Your task to perform on an android device: delete the emails in spam in the gmail app Image 0: 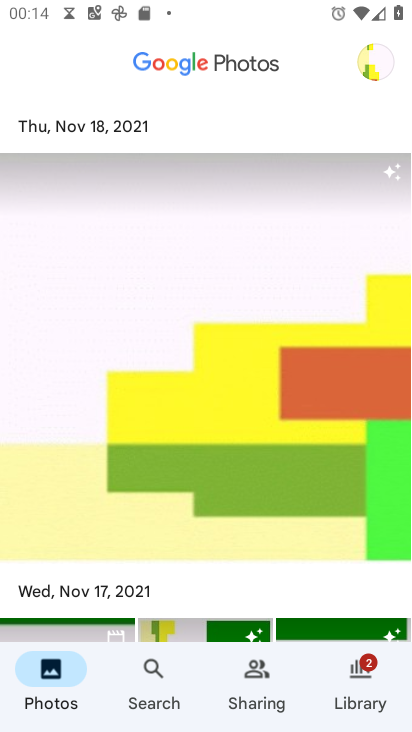
Step 0: press home button
Your task to perform on an android device: delete the emails in spam in the gmail app Image 1: 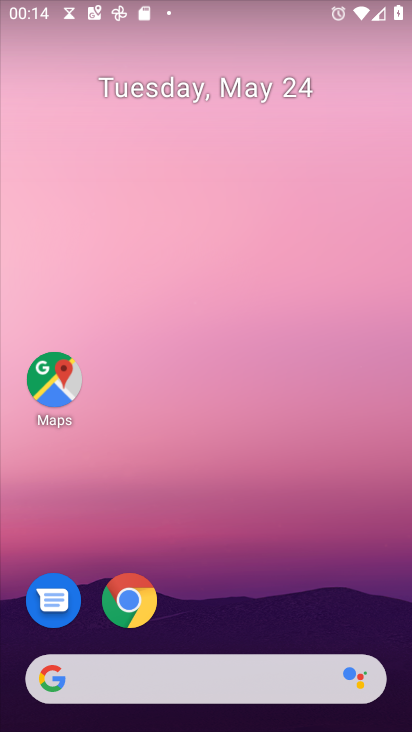
Step 1: drag from (171, 712) to (185, 53)
Your task to perform on an android device: delete the emails in spam in the gmail app Image 2: 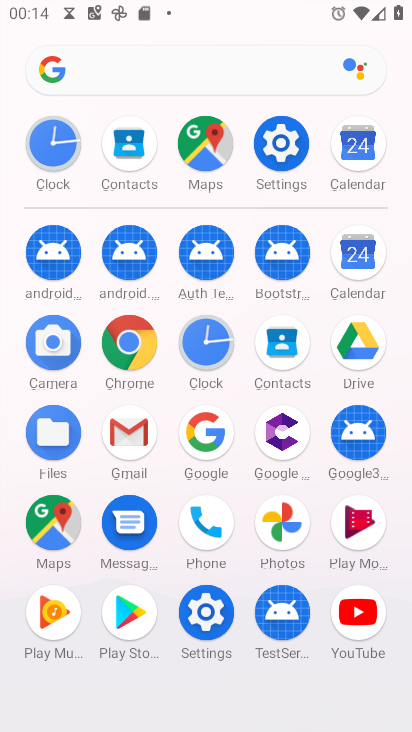
Step 2: click (142, 427)
Your task to perform on an android device: delete the emails in spam in the gmail app Image 3: 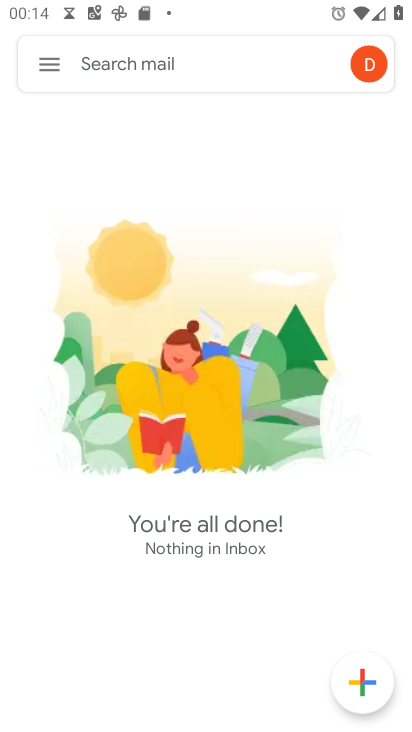
Step 3: task complete